Your task to perform on an android device: toggle pop-ups in chrome Image 0: 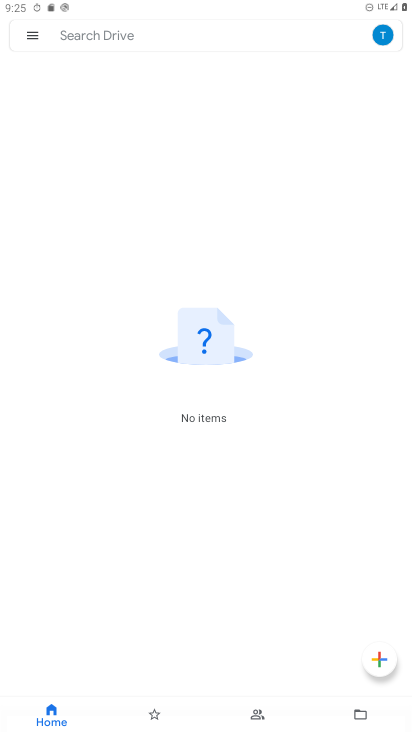
Step 0: press home button
Your task to perform on an android device: toggle pop-ups in chrome Image 1: 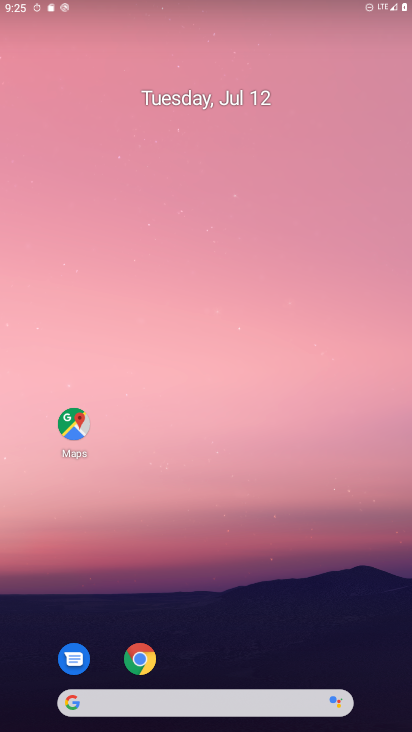
Step 1: drag from (365, 700) to (211, 9)
Your task to perform on an android device: toggle pop-ups in chrome Image 2: 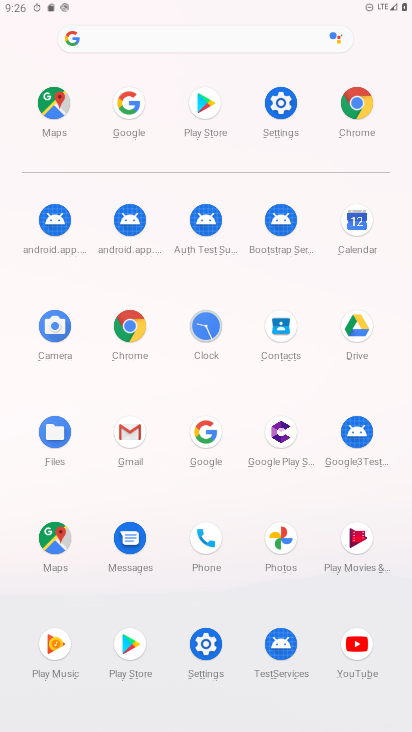
Step 2: click (343, 101)
Your task to perform on an android device: toggle pop-ups in chrome Image 3: 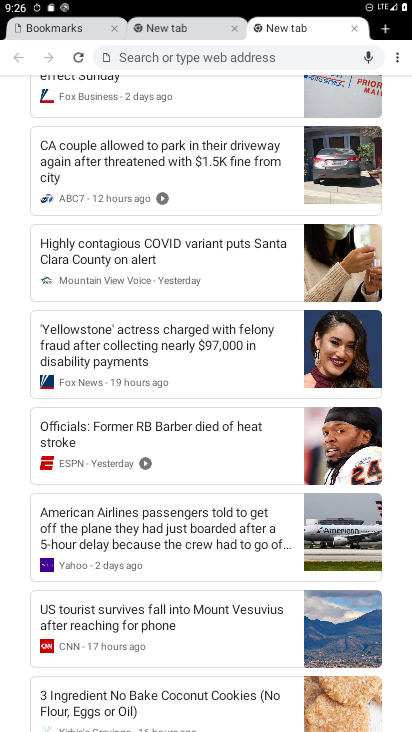
Step 3: click (395, 53)
Your task to perform on an android device: toggle pop-ups in chrome Image 4: 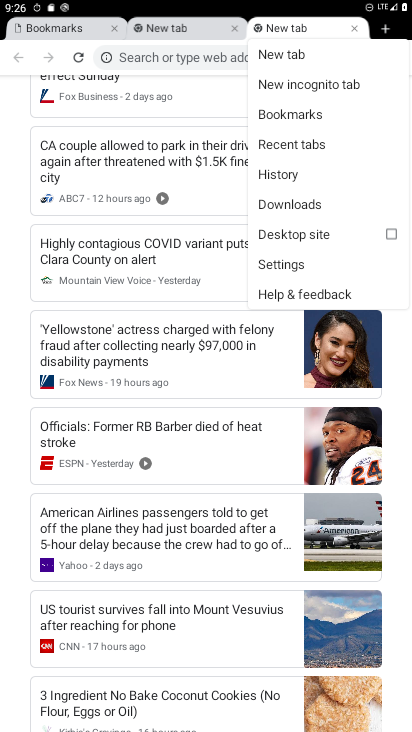
Step 4: click (287, 268)
Your task to perform on an android device: toggle pop-ups in chrome Image 5: 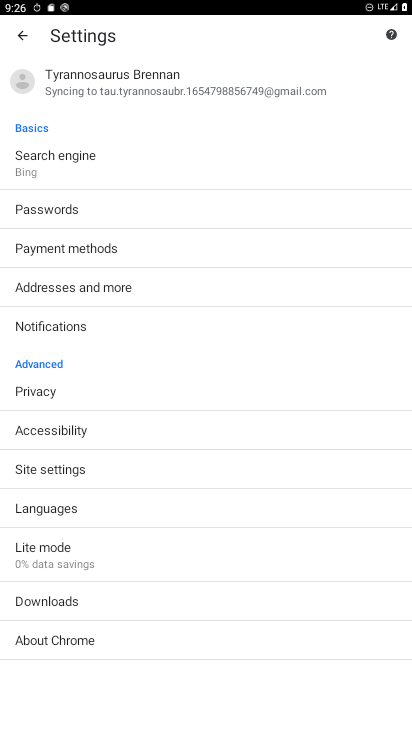
Step 5: click (84, 477)
Your task to perform on an android device: toggle pop-ups in chrome Image 6: 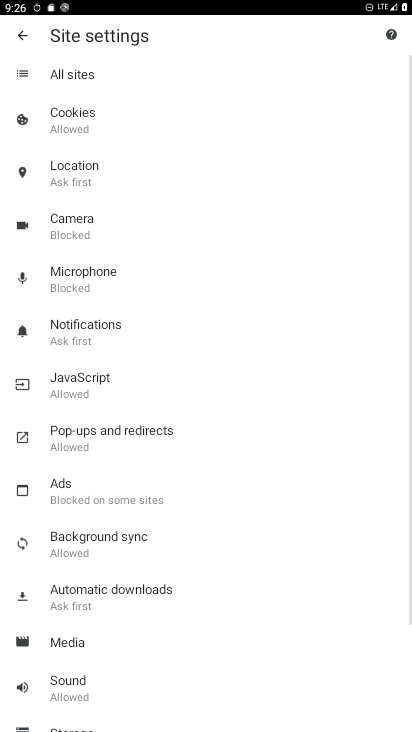
Step 6: click (91, 435)
Your task to perform on an android device: toggle pop-ups in chrome Image 7: 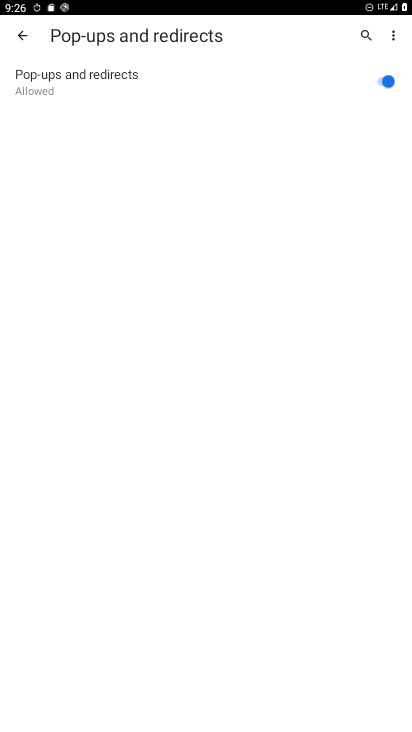
Step 7: click (360, 87)
Your task to perform on an android device: toggle pop-ups in chrome Image 8: 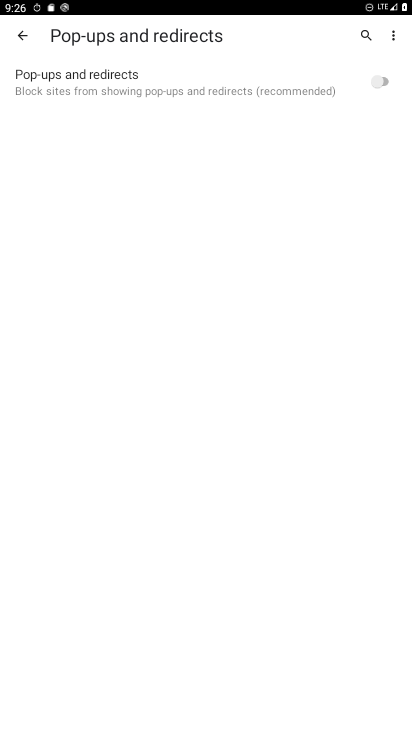
Step 8: task complete